Your task to perform on an android device: Go to accessibility settings Image 0: 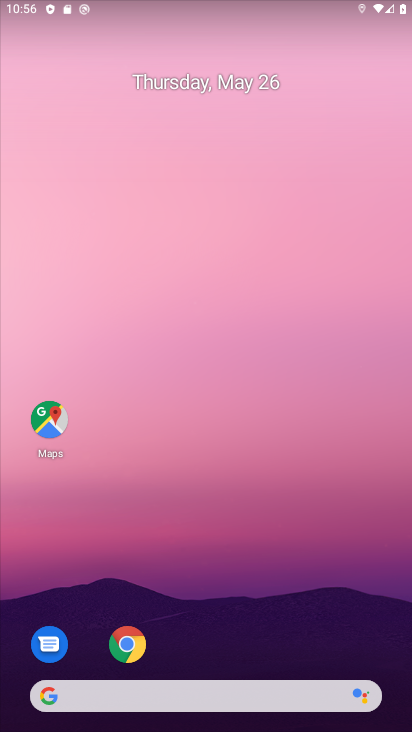
Step 0: drag from (146, 618) to (173, 127)
Your task to perform on an android device: Go to accessibility settings Image 1: 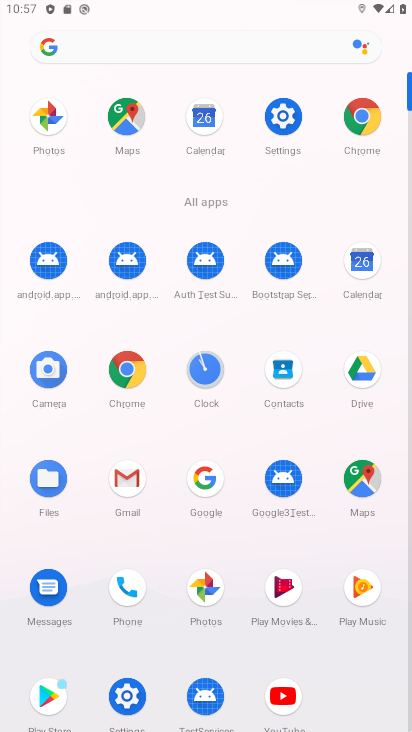
Step 1: click (287, 123)
Your task to perform on an android device: Go to accessibility settings Image 2: 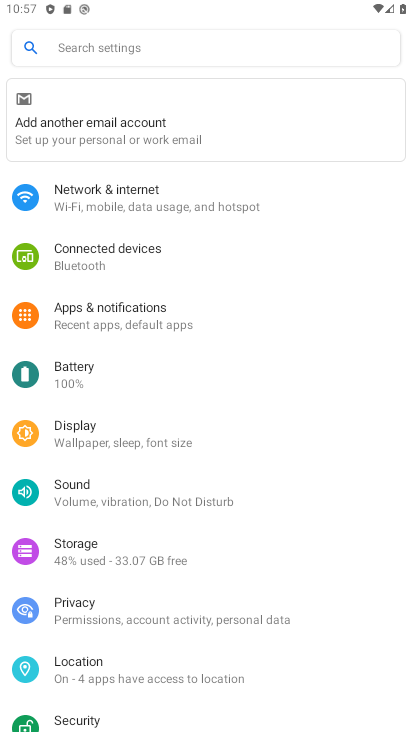
Step 2: drag from (312, 688) to (282, 278)
Your task to perform on an android device: Go to accessibility settings Image 3: 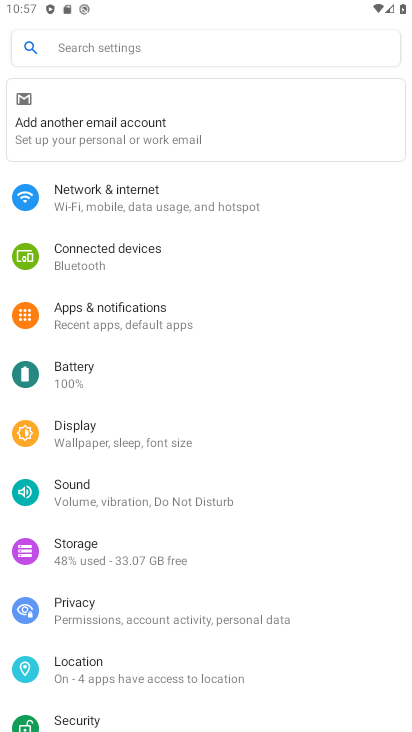
Step 3: drag from (288, 700) to (277, 225)
Your task to perform on an android device: Go to accessibility settings Image 4: 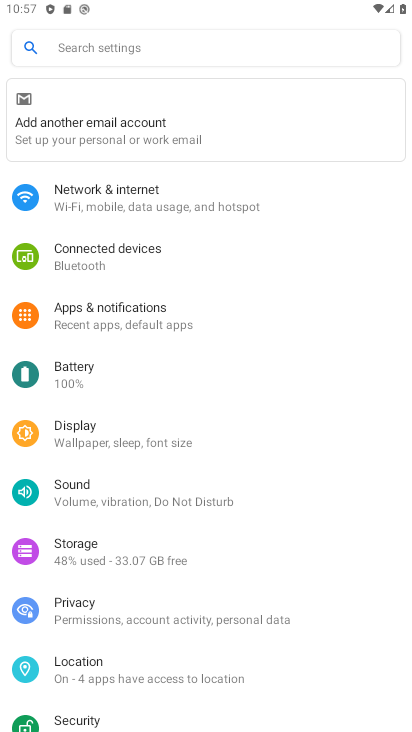
Step 4: drag from (345, 700) to (336, 175)
Your task to perform on an android device: Go to accessibility settings Image 5: 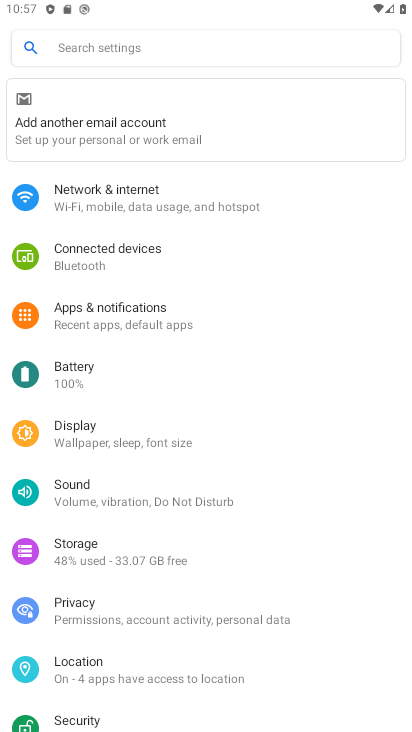
Step 5: drag from (333, 688) to (328, 151)
Your task to perform on an android device: Go to accessibility settings Image 6: 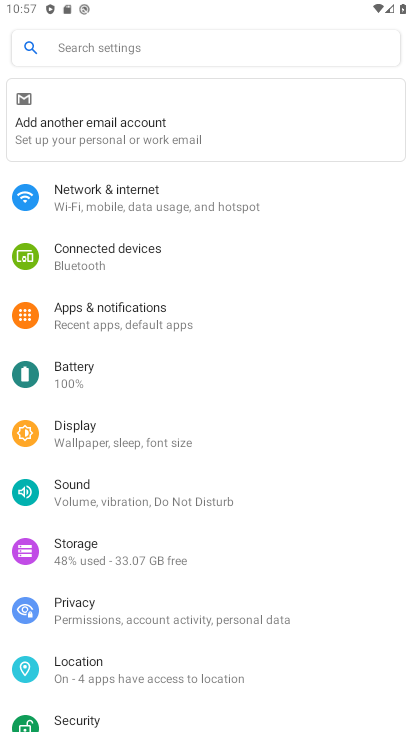
Step 6: drag from (343, 709) to (354, 104)
Your task to perform on an android device: Go to accessibility settings Image 7: 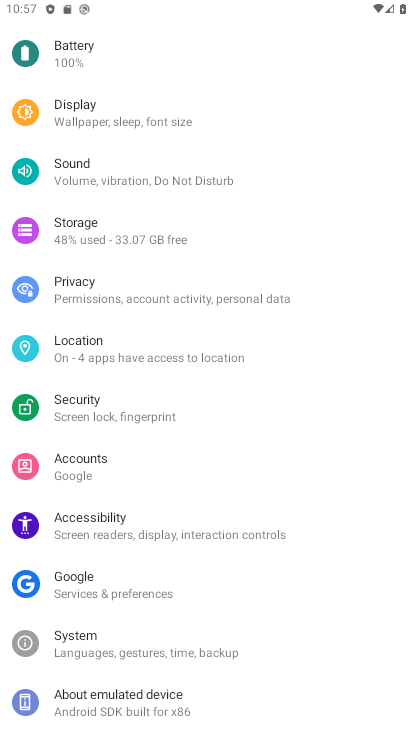
Step 7: click (281, 532)
Your task to perform on an android device: Go to accessibility settings Image 8: 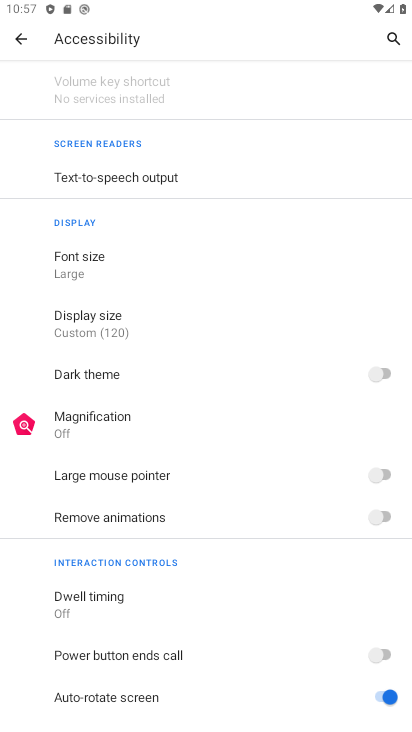
Step 8: task complete